Your task to perform on an android device: Open my contact list Image 0: 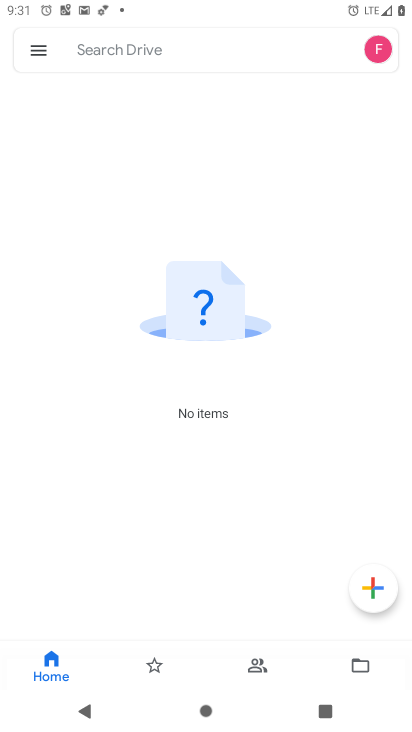
Step 0: press home button
Your task to perform on an android device: Open my contact list Image 1: 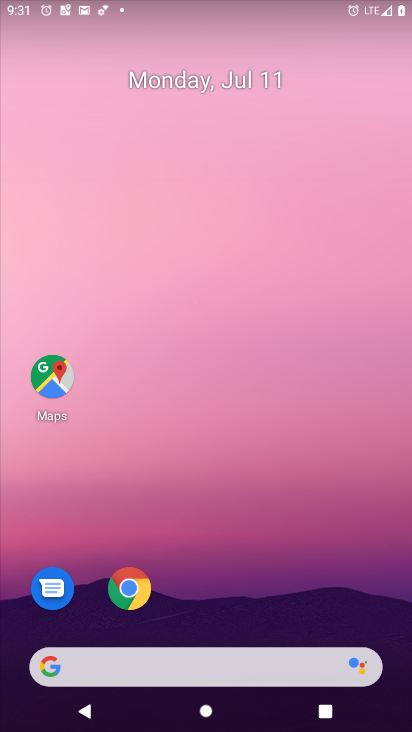
Step 1: drag from (128, 665) to (159, 131)
Your task to perform on an android device: Open my contact list Image 2: 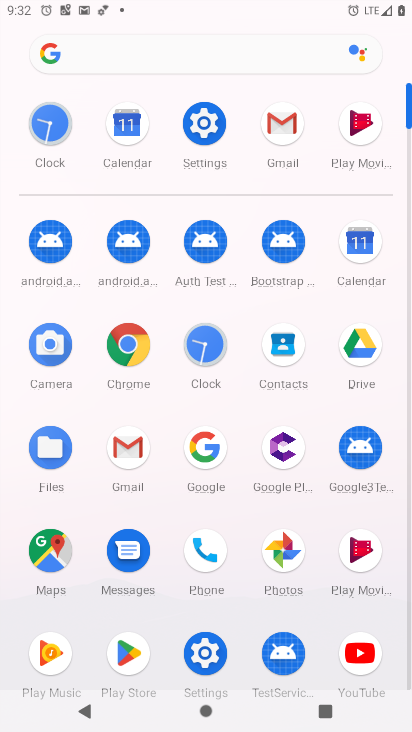
Step 2: click (285, 346)
Your task to perform on an android device: Open my contact list Image 3: 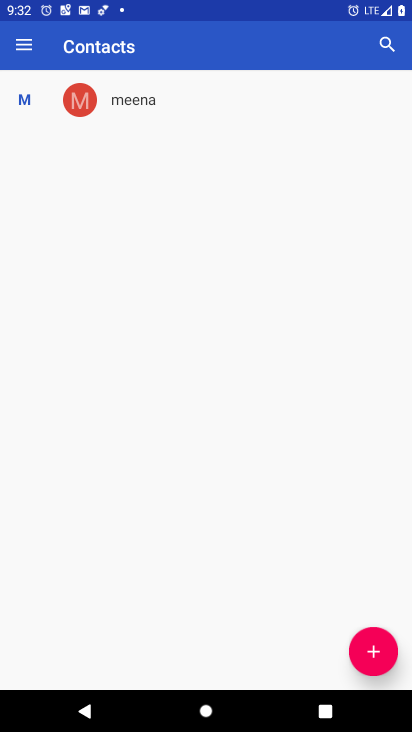
Step 3: task complete